Your task to perform on an android device: Check the weather Image 0: 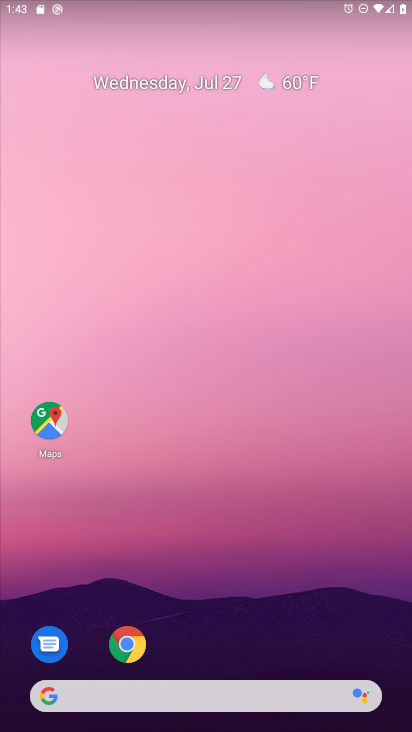
Step 0: click (94, 177)
Your task to perform on an android device: Check the weather Image 1: 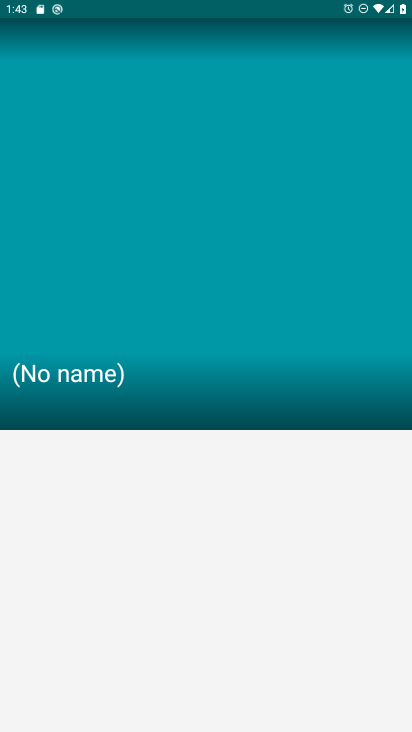
Step 1: drag from (166, 537) to (163, 217)
Your task to perform on an android device: Check the weather Image 2: 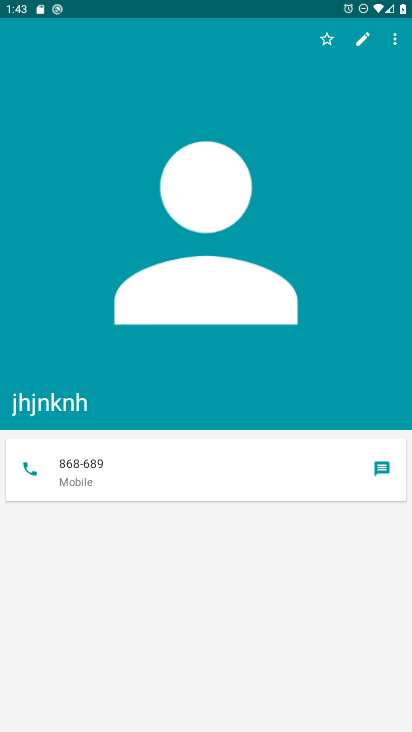
Step 2: press home button
Your task to perform on an android device: Check the weather Image 3: 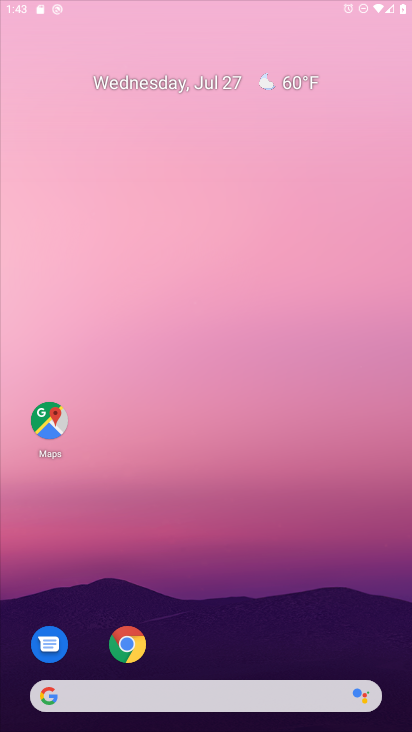
Step 3: drag from (176, 592) to (235, 154)
Your task to perform on an android device: Check the weather Image 4: 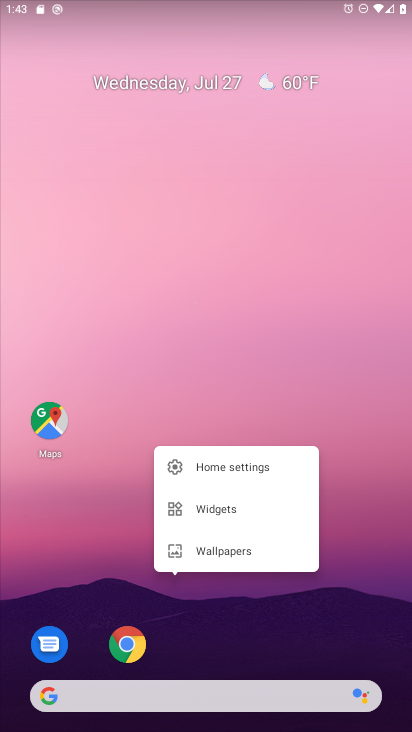
Step 4: drag from (183, 654) to (159, 338)
Your task to perform on an android device: Check the weather Image 5: 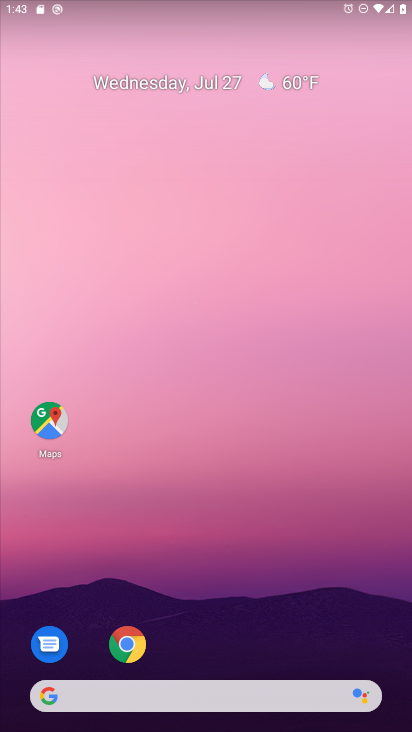
Step 5: drag from (188, 634) to (190, 362)
Your task to perform on an android device: Check the weather Image 6: 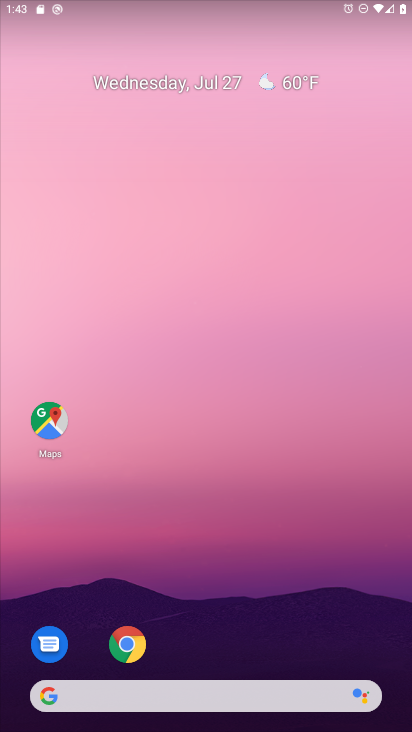
Step 6: drag from (206, 603) to (192, 119)
Your task to perform on an android device: Check the weather Image 7: 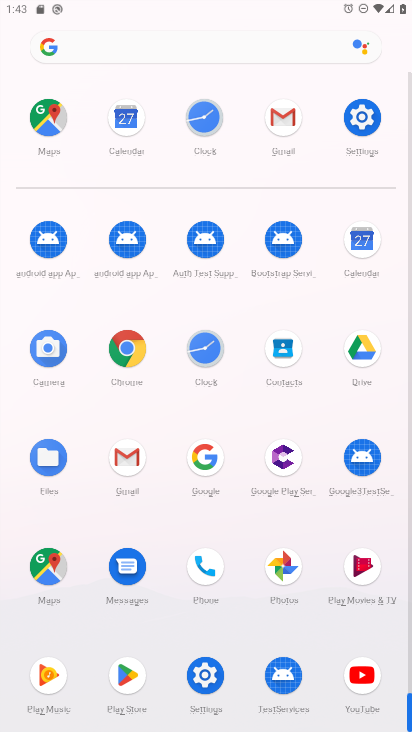
Step 7: click (170, 42)
Your task to perform on an android device: Check the weather Image 8: 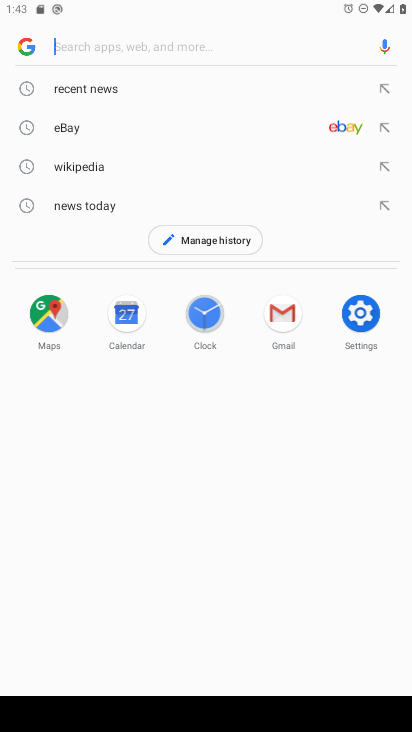
Step 8: drag from (102, 186) to (150, 80)
Your task to perform on an android device: Check the weather Image 9: 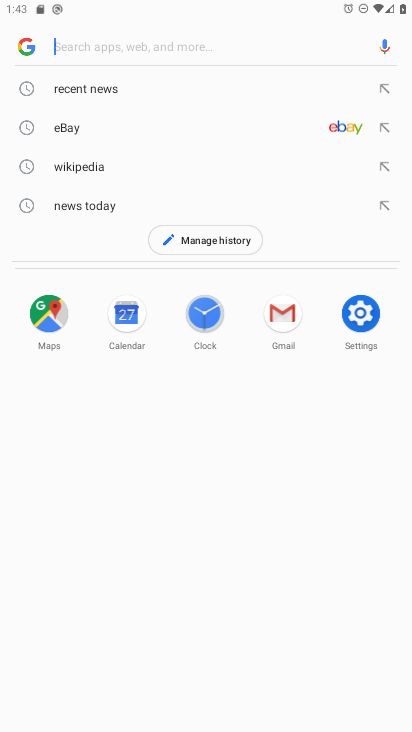
Step 9: type "weather"
Your task to perform on an android device: Check the weather Image 10: 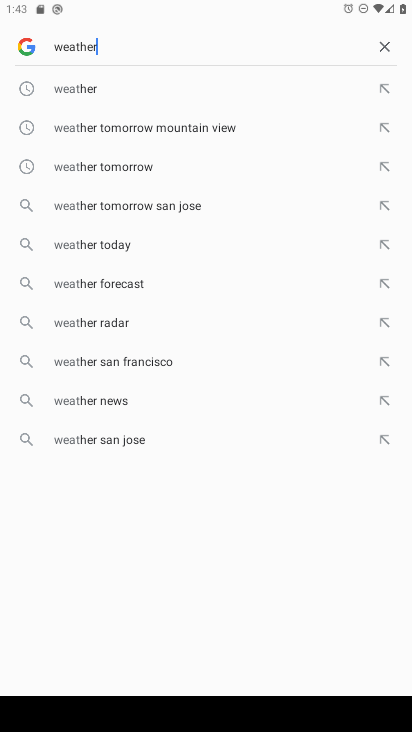
Step 10: type ""
Your task to perform on an android device: Check the weather Image 11: 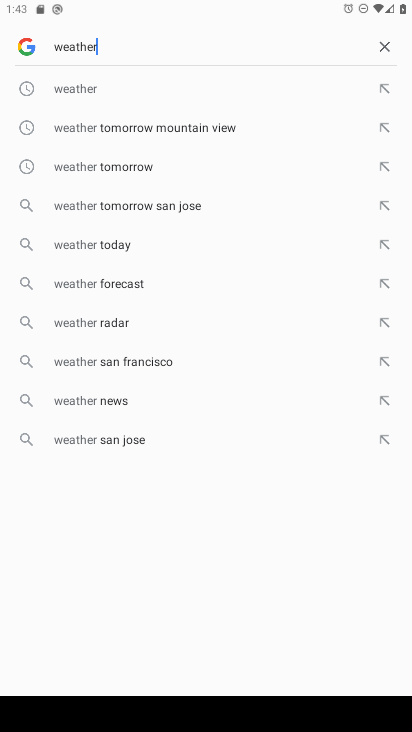
Step 11: click (79, 75)
Your task to perform on an android device: Check the weather Image 12: 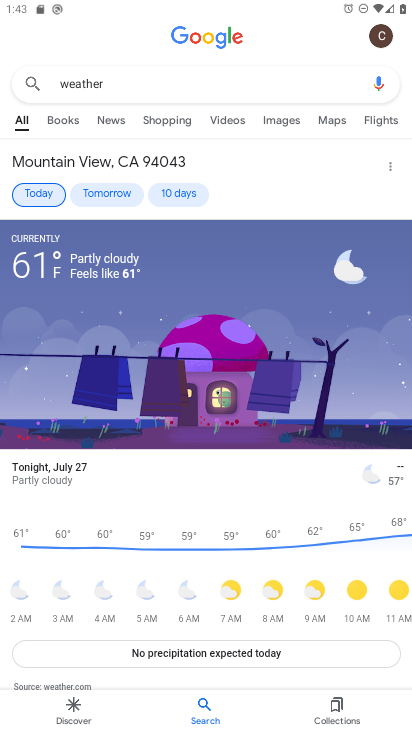
Step 12: task complete